Your task to perform on an android device: Set the phone to "Do not disturb". Image 0: 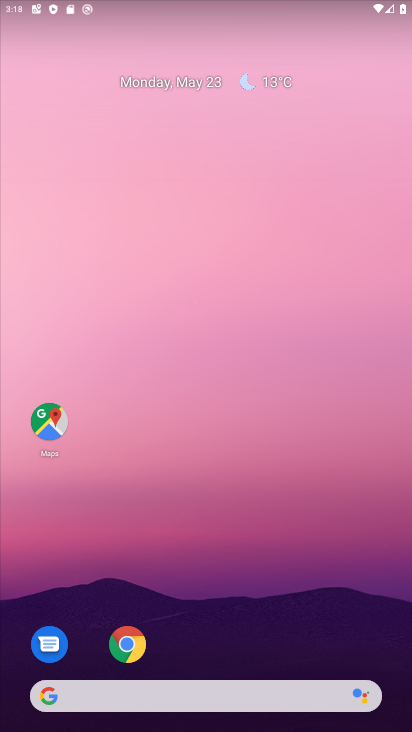
Step 0: drag from (190, 18) to (178, 482)
Your task to perform on an android device: Set the phone to "Do not disturb". Image 1: 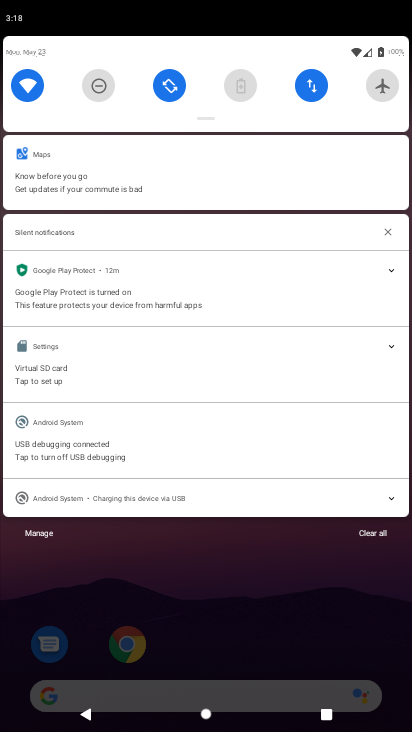
Step 1: click (98, 81)
Your task to perform on an android device: Set the phone to "Do not disturb". Image 2: 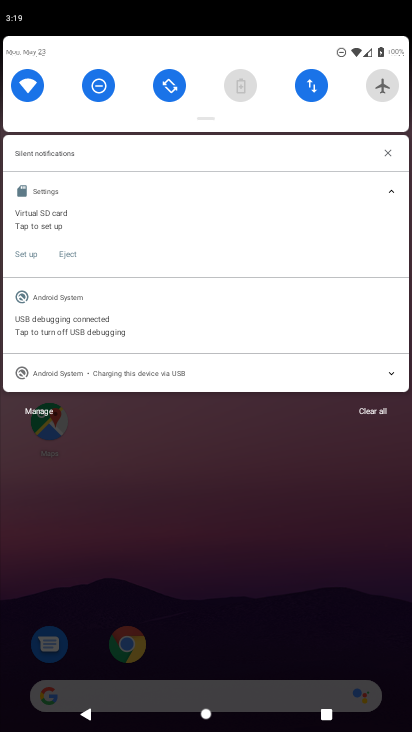
Step 2: task complete